Your task to perform on an android device: turn on showing notifications on the lock screen Image 0: 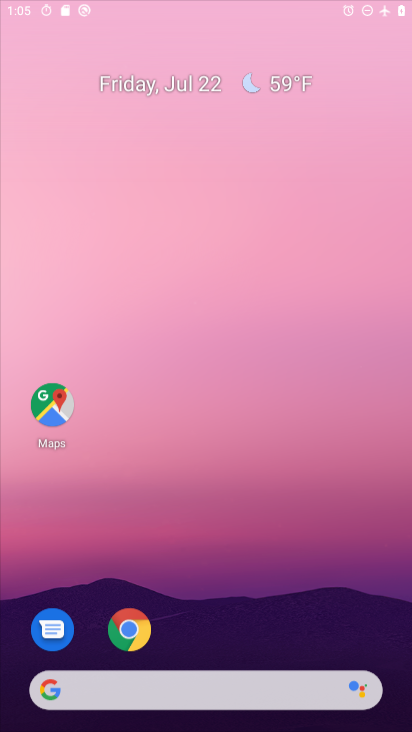
Step 0: press home button
Your task to perform on an android device: turn on showing notifications on the lock screen Image 1: 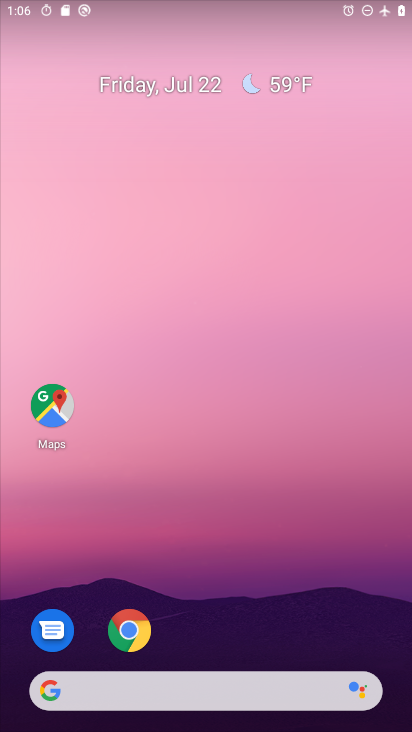
Step 1: drag from (255, 639) to (145, 43)
Your task to perform on an android device: turn on showing notifications on the lock screen Image 2: 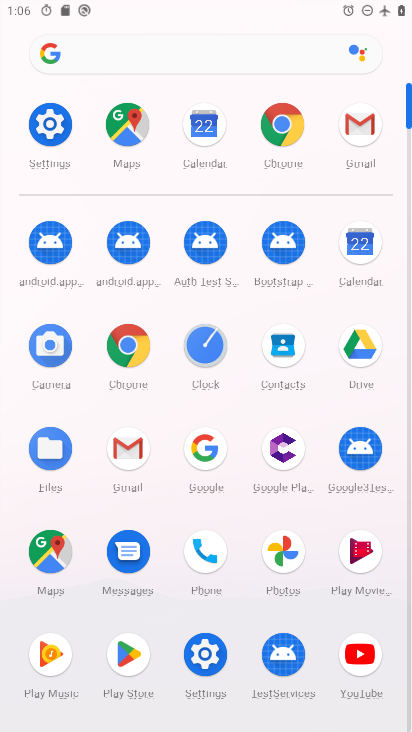
Step 2: click (42, 123)
Your task to perform on an android device: turn on showing notifications on the lock screen Image 3: 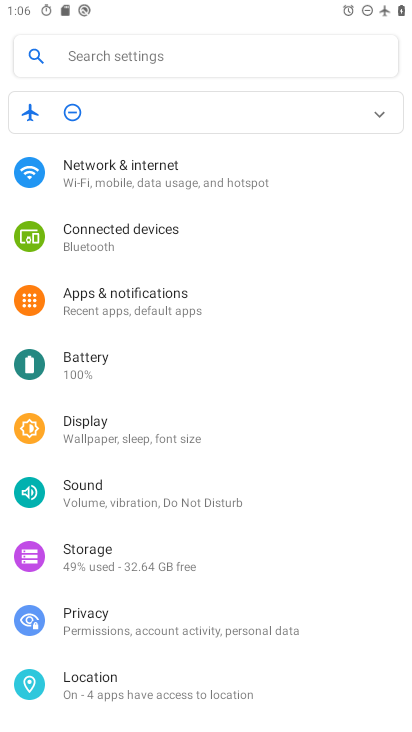
Step 3: click (93, 300)
Your task to perform on an android device: turn on showing notifications on the lock screen Image 4: 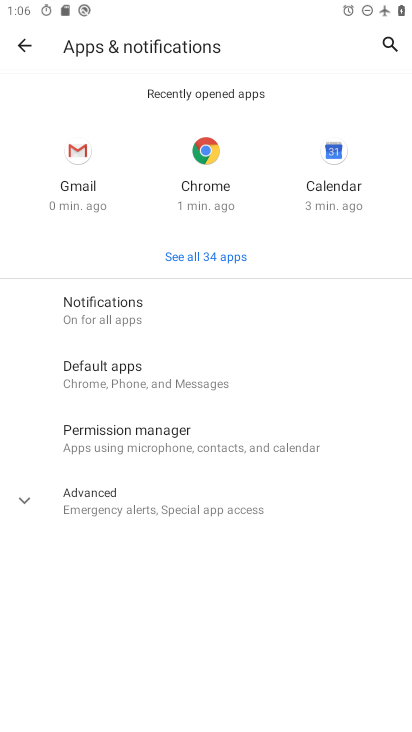
Step 4: click (107, 313)
Your task to perform on an android device: turn on showing notifications on the lock screen Image 5: 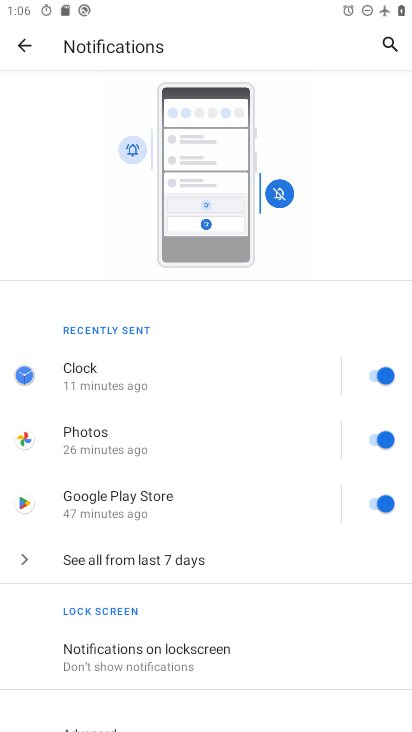
Step 5: click (129, 664)
Your task to perform on an android device: turn on showing notifications on the lock screen Image 6: 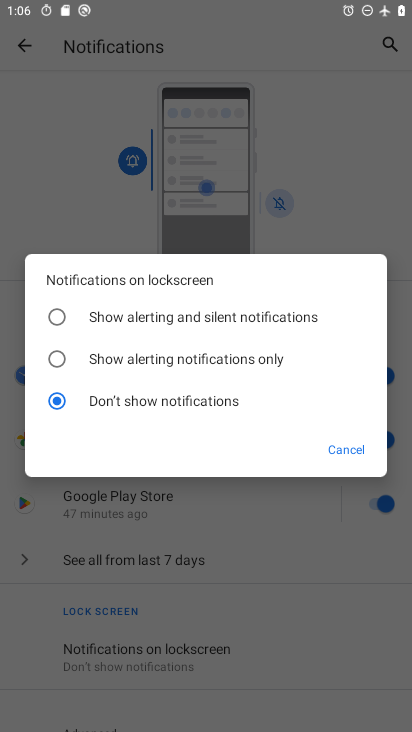
Step 6: click (51, 307)
Your task to perform on an android device: turn on showing notifications on the lock screen Image 7: 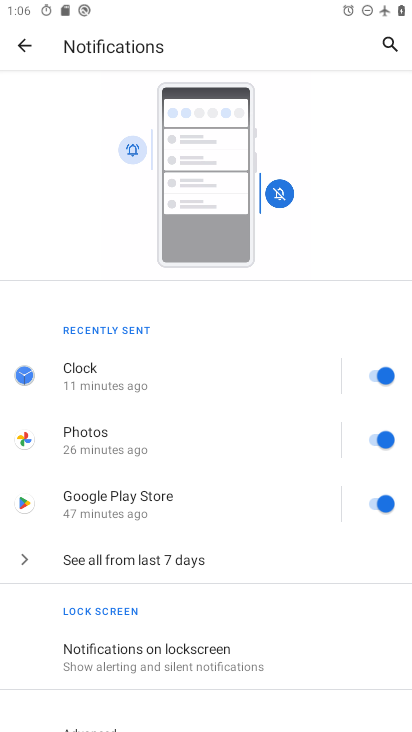
Step 7: task complete